Your task to perform on an android device: toggle pop-ups in chrome Image 0: 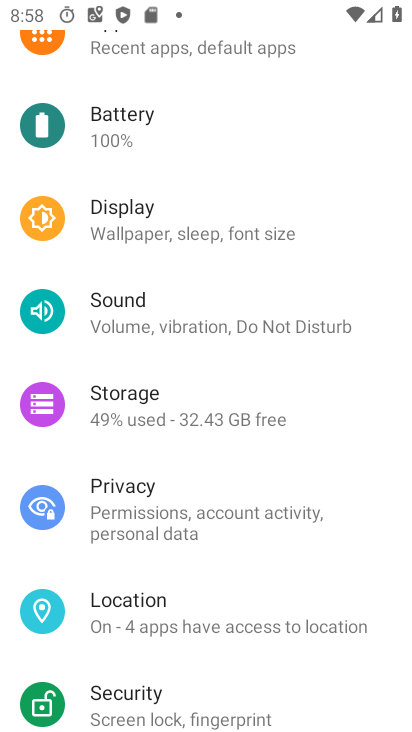
Step 0: press home button
Your task to perform on an android device: toggle pop-ups in chrome Image 1: 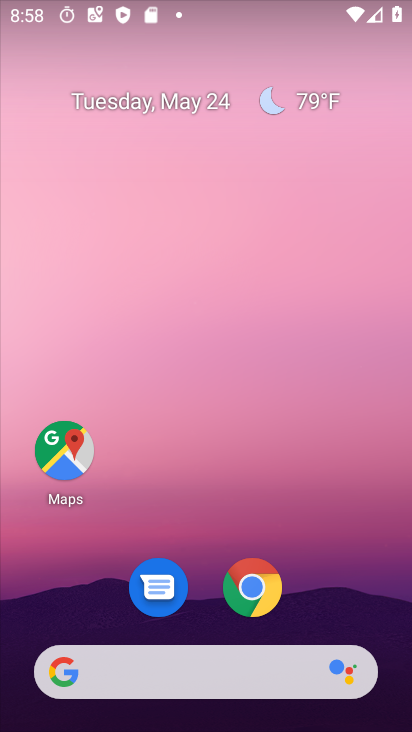
Step 1: click (252, 587)
Your task to perform on an android device: toggle pop-ups in chrome Image 2: 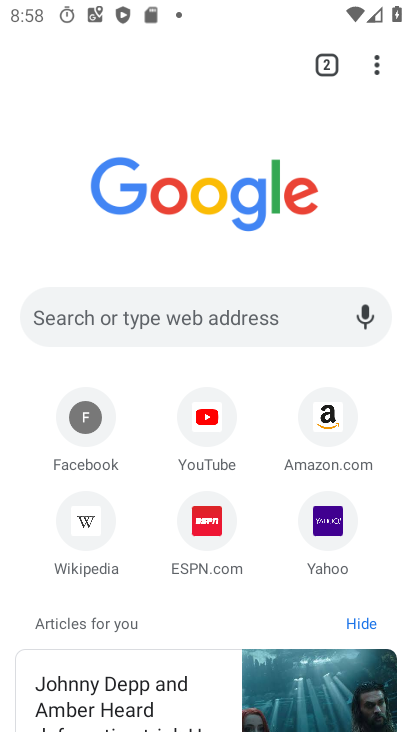
Step 2: click (377, 61)
Your task to perform on an android device: toggle pop-ups in chrome Image 3: 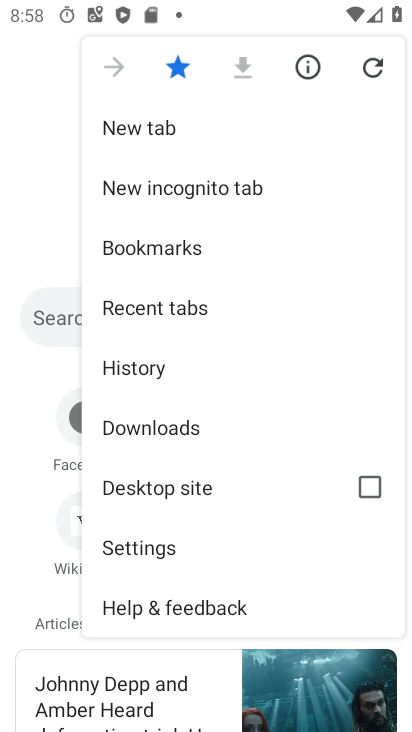
Step 3: drag from (178, 514) to (243, 428)
Your task to perform on an android device: toggle pop-ups in chrome Image 4: 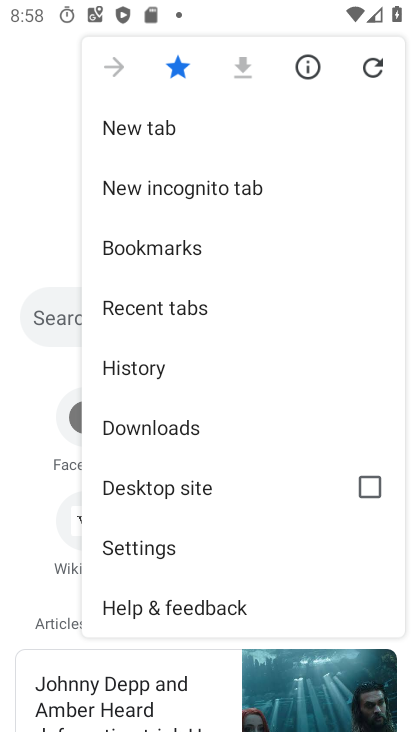
Step 4: click (155, 547)
Your task to perform on an android device: toggle pop-ups in chrome Image 5: 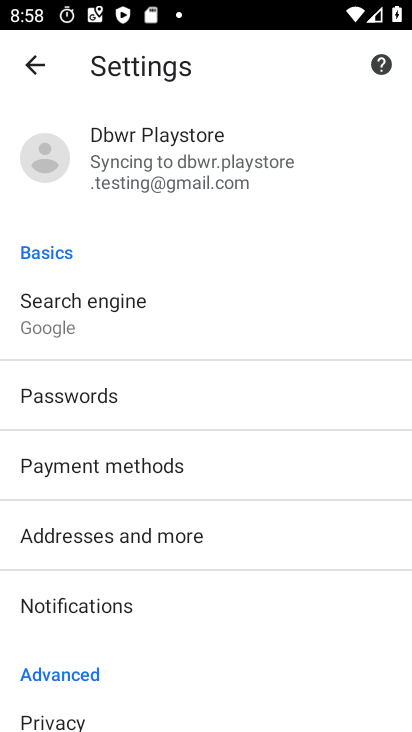
Step 5: drag from (167, 583) to (197, 490)
Your task to perform on an android device: toggle pop-ups in chrome Image 6: 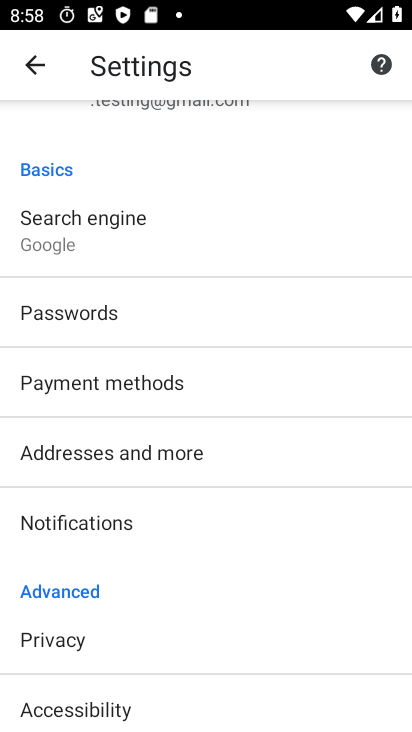
Step 6: drag from (151, 566) to (205, 476)
Your task to perform on an android device: toggle pop-ups in chrome Image 7: 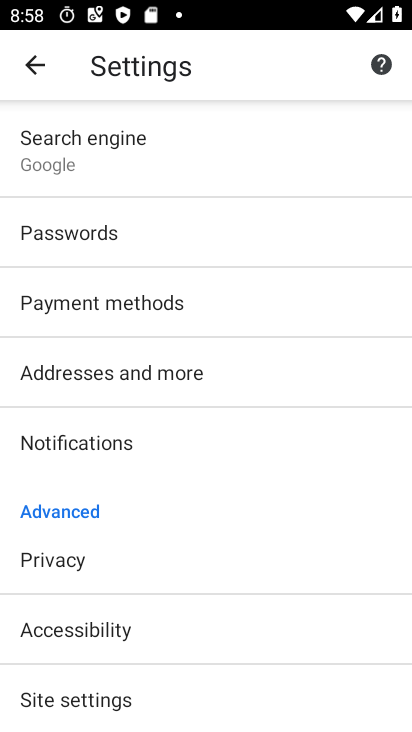
Step 7: drag from (132, 558) to (183, 490)
Your task to perform on an android device: toggle pop-ups in chrome Image 8: 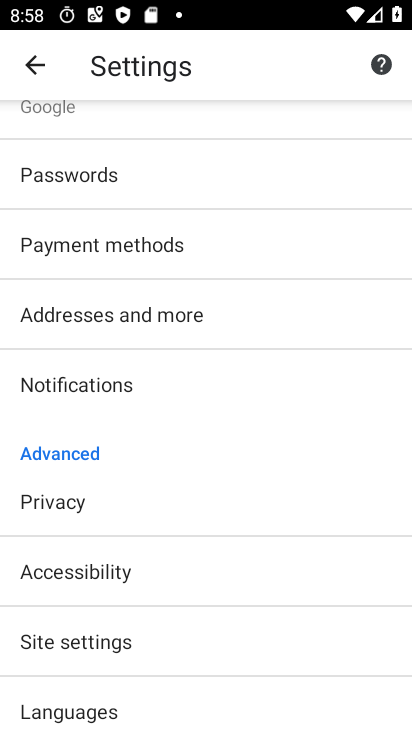
Step 8: drag from (158, 571) to (213, 482)
Your task to perform on an android device: toggle pop-ups in chrome Image 9: 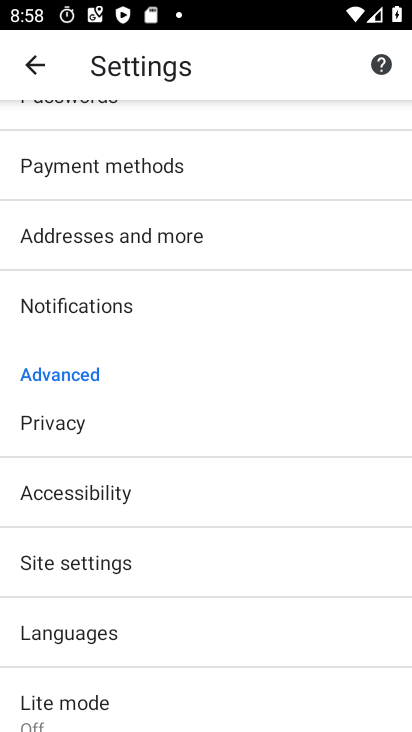
Step 9: click (121, 560)
Your task to perform on an android device: toggle pop-ups in chrome Image 10: 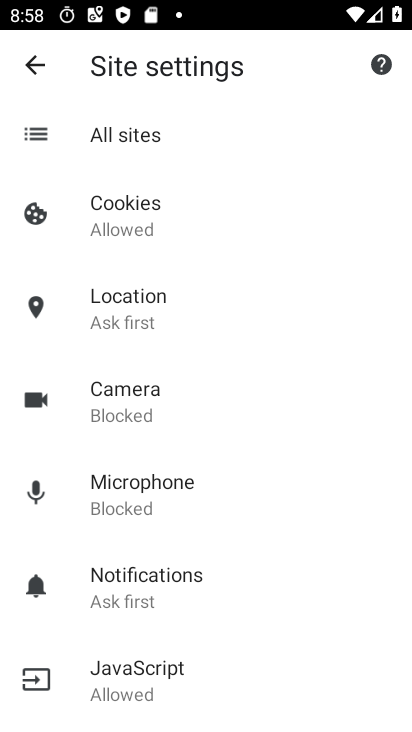
Step 10: drag from (134, 534) to (201, 428)
Your task to perform on an android device: toggle pop-ups in chrome Image 11: 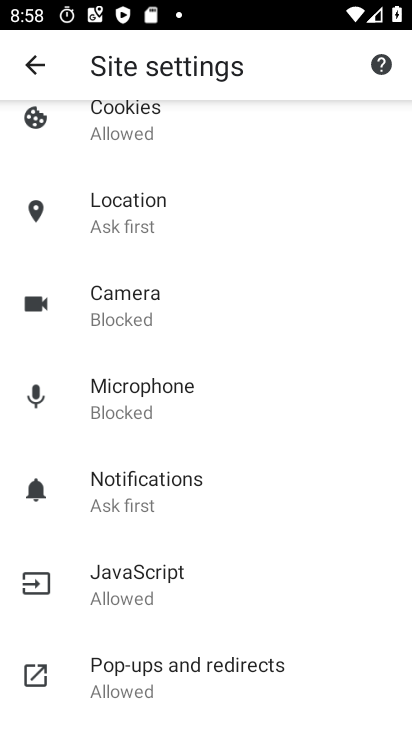
Step 11: drag from (165, 620) to (212, 493)
Your task to perform on an android device: toggle pop-ups in chrome Image 12: 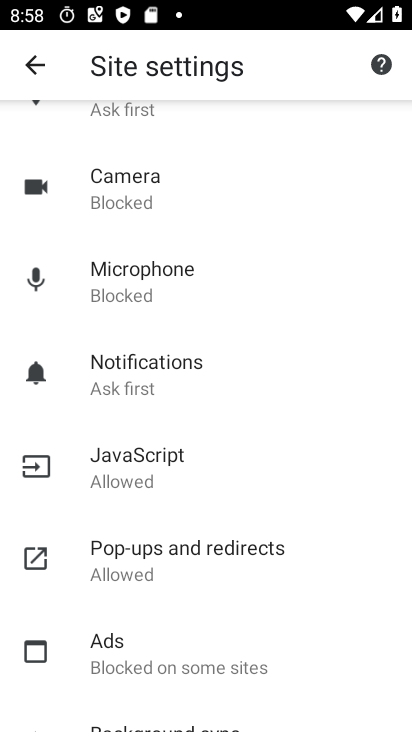
Step 12: click (183, 543)
Your task to perform on an android device: toggle pop-ups in chrome Image 13: 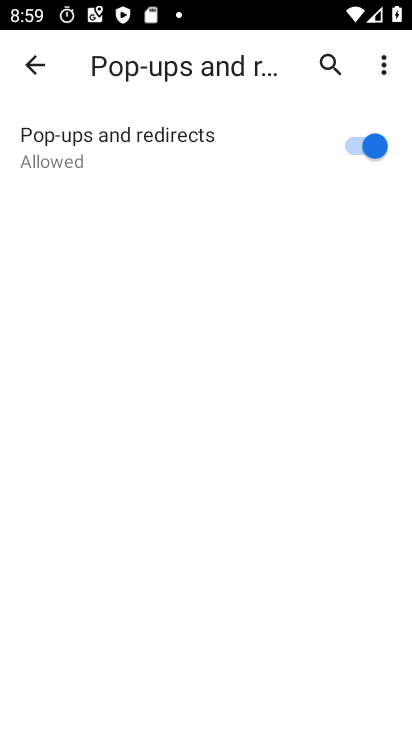
Step 13: click (350, 149)
Your task to perform on an android device: toggle pop-ups in chrome Image 14: 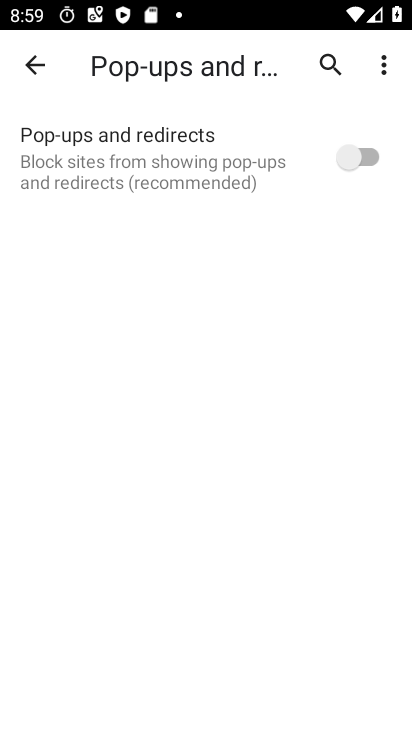
Step 14: task complete